Your task to perform on an android device: Empty the shopping cart on walmart.com. Image 0: 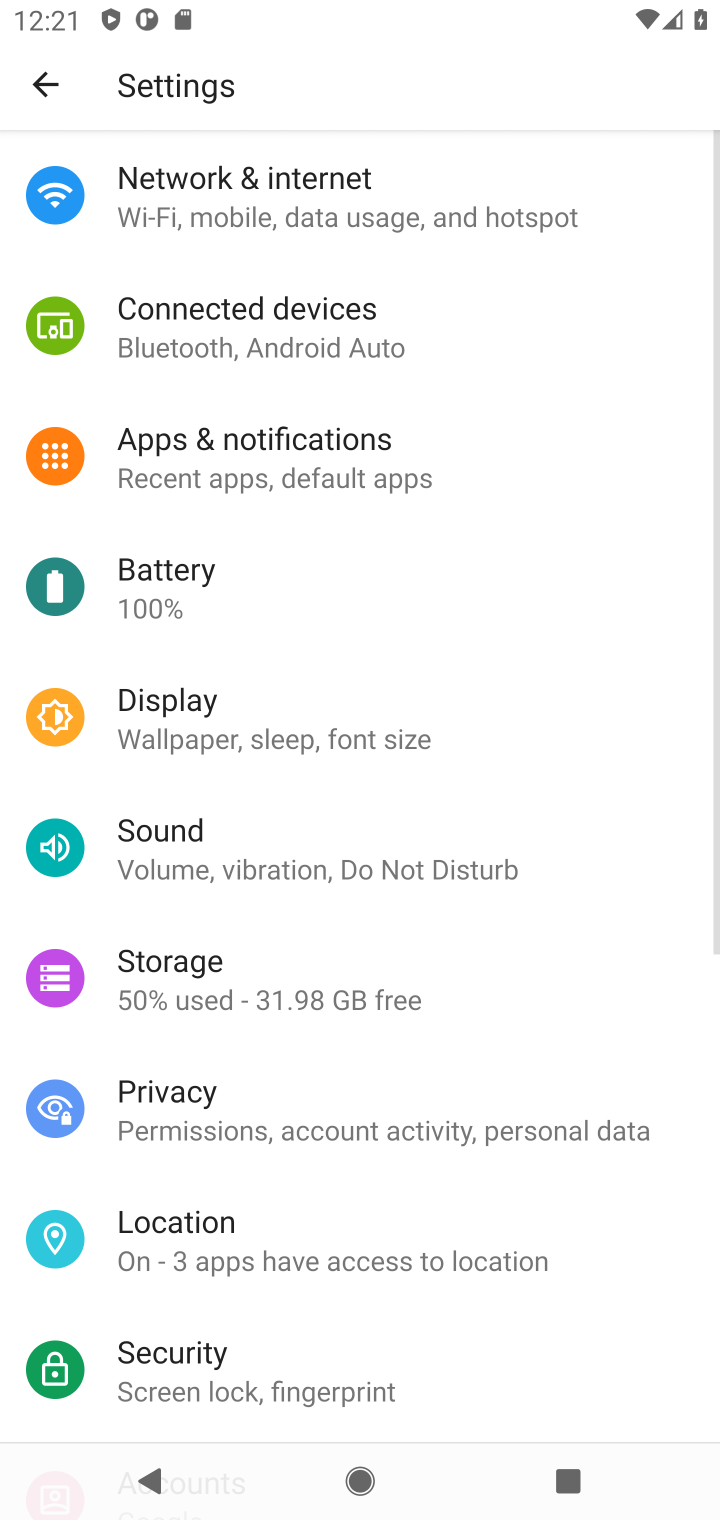
Step 0: press home button
Your task to perform on an android device: Empty the shopping cart on walmart.com. Image 1: 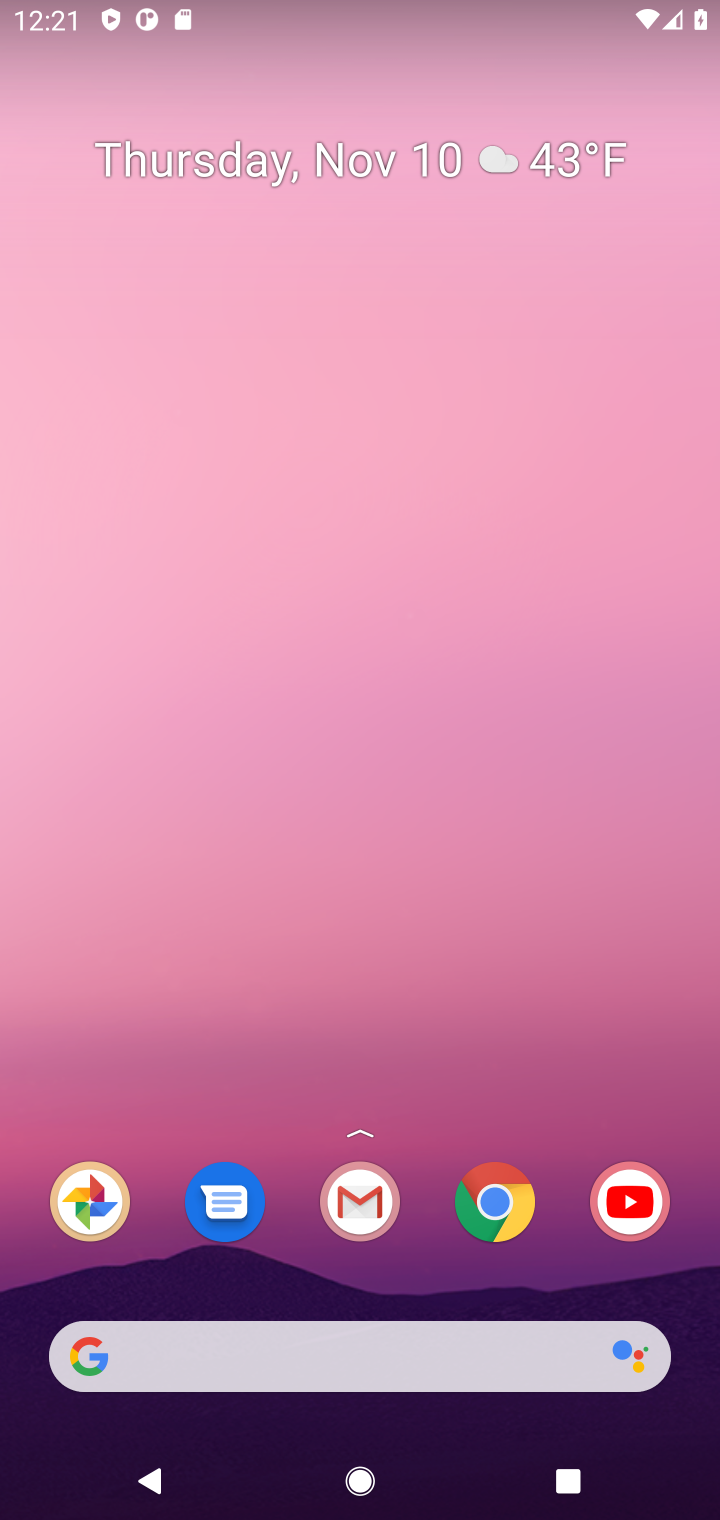
Step 1: click (519, 1198)
Your task to perform on an android device: Empty the shopping cart on walmart.com. Image 2: 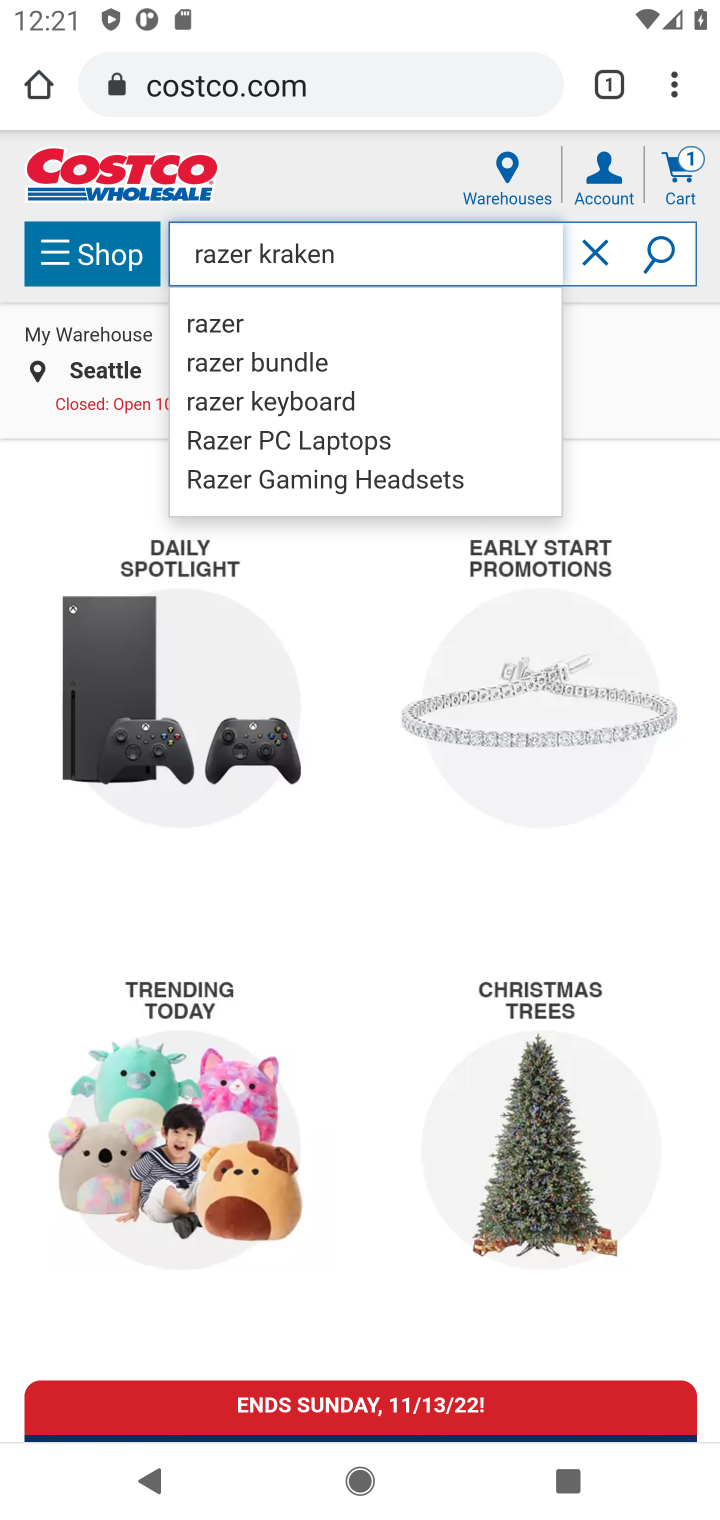
Step 2: click (356, 64)
Your task to perform on an android device: Empty the shopping cart on walmart.com. Image 3: 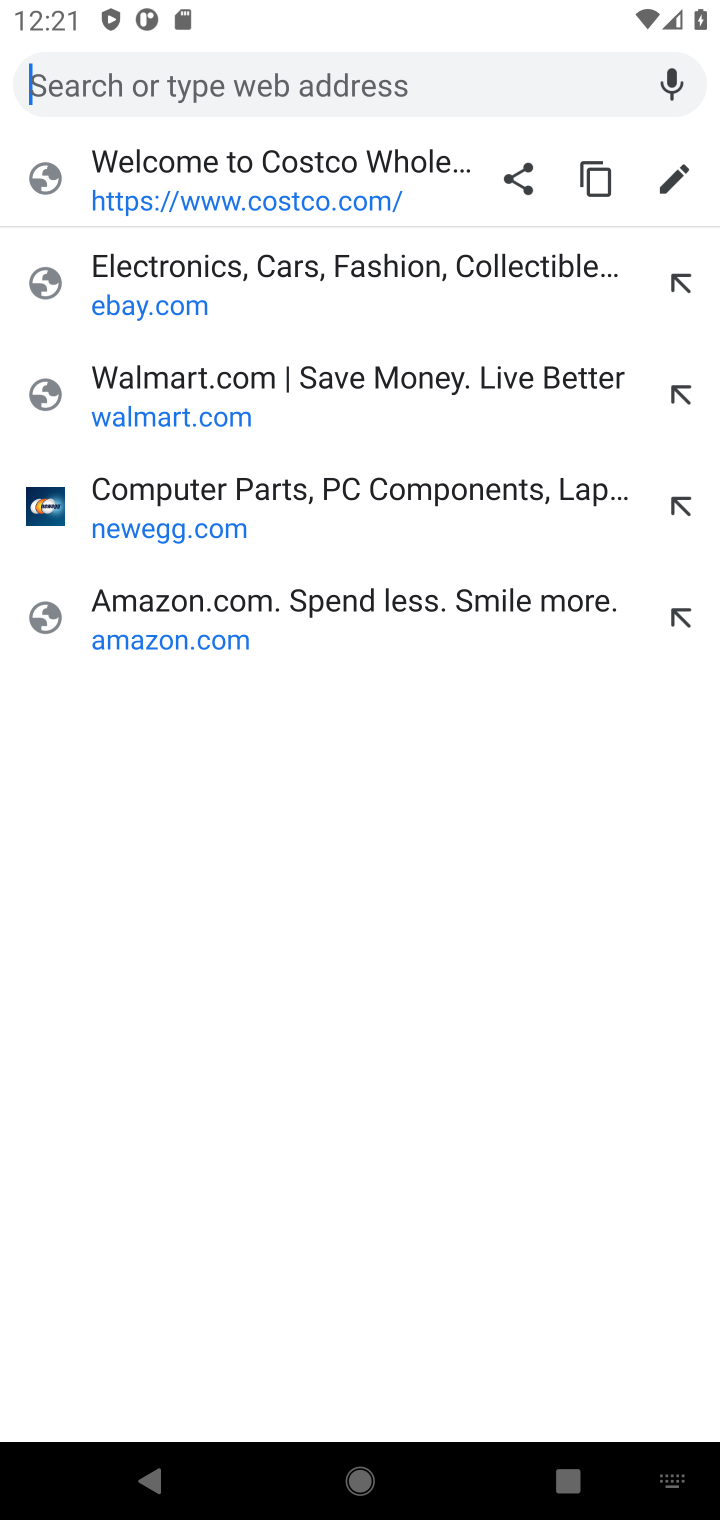
Step 3: click (300, 378)
Your task to perform on an android device: Empty the shopping cart on walmart.com. Image 4: 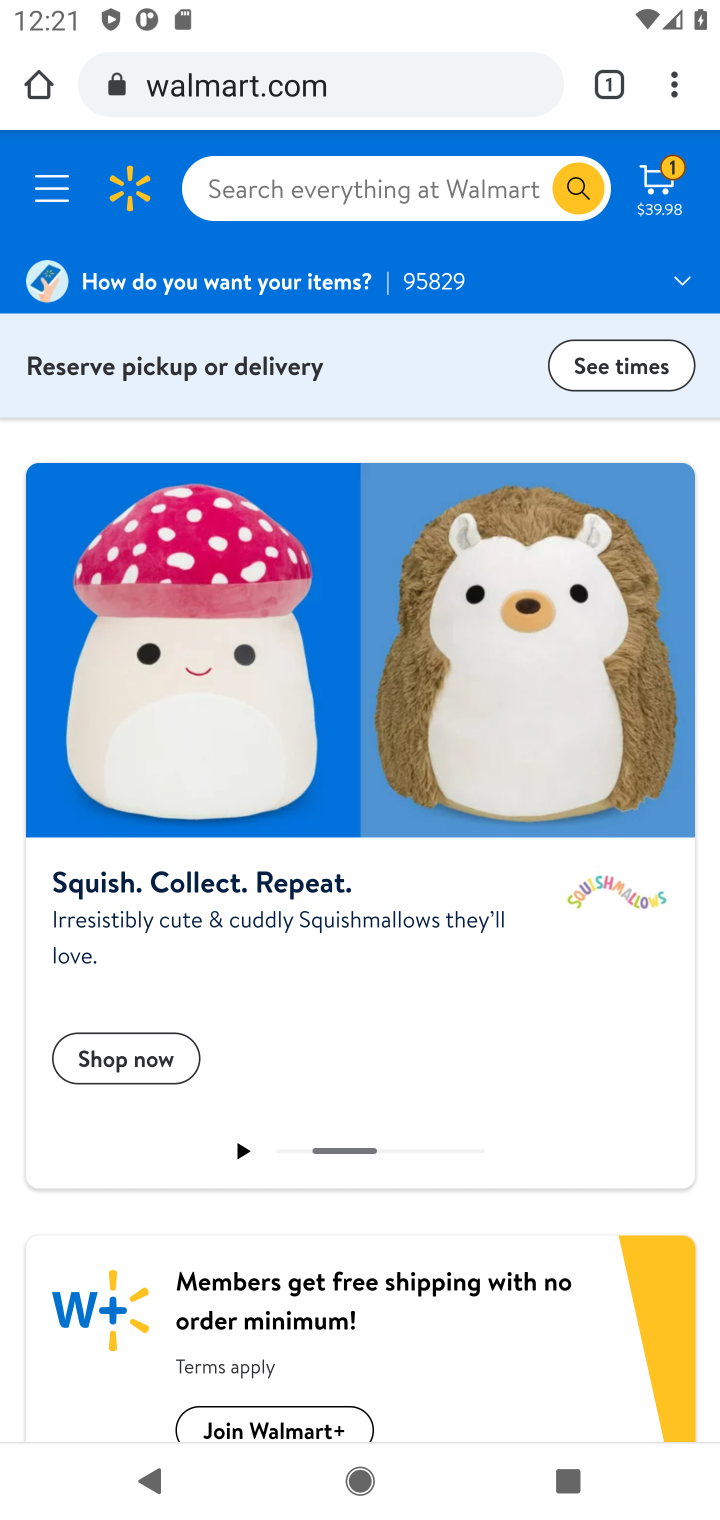
Step 4: click (663, 175)
Your task to perform on an android device: Empty the shopping cart on walmart.com. Image 5: 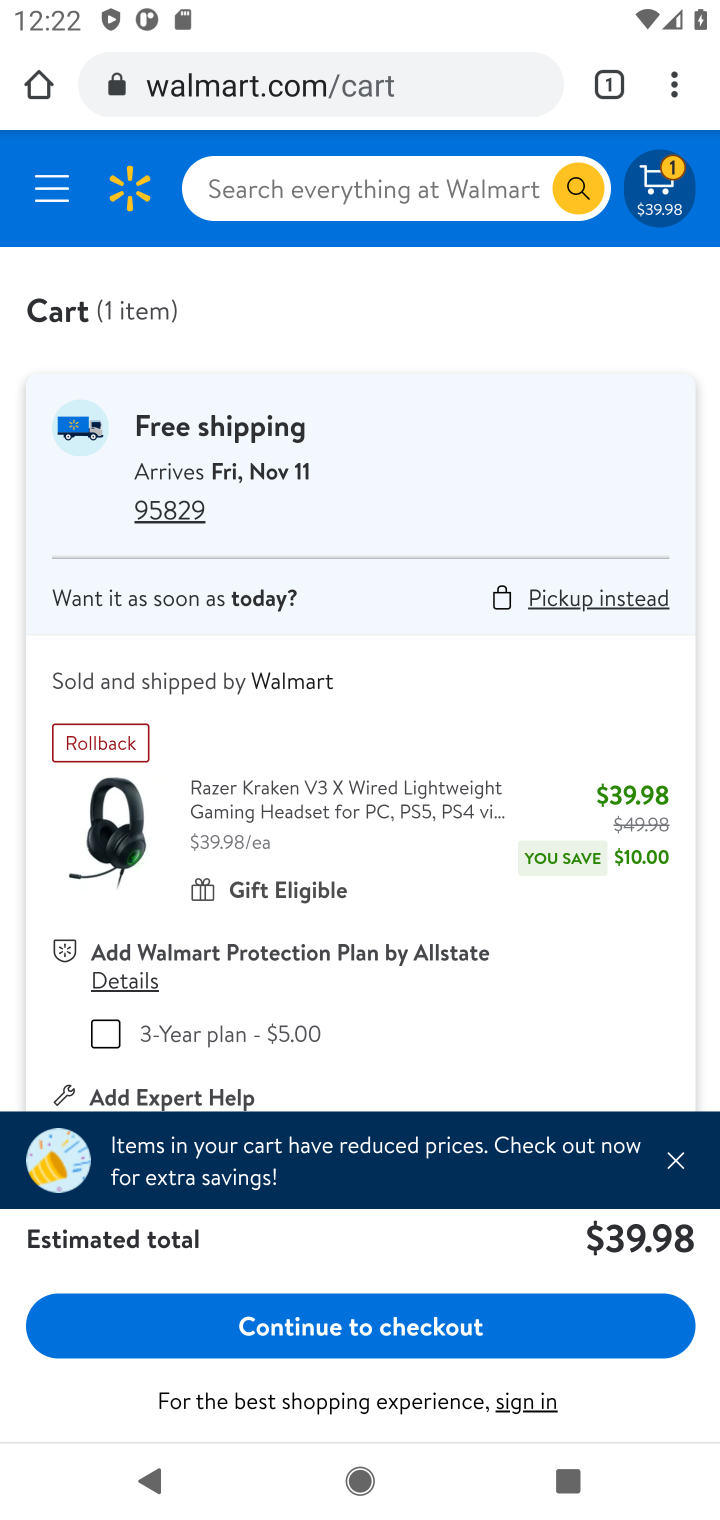
Step 5: drag from (587, 970) to (565, 498)
Your task to perform on an android device: Empty the shopping cart on walmart.com. Image 6: 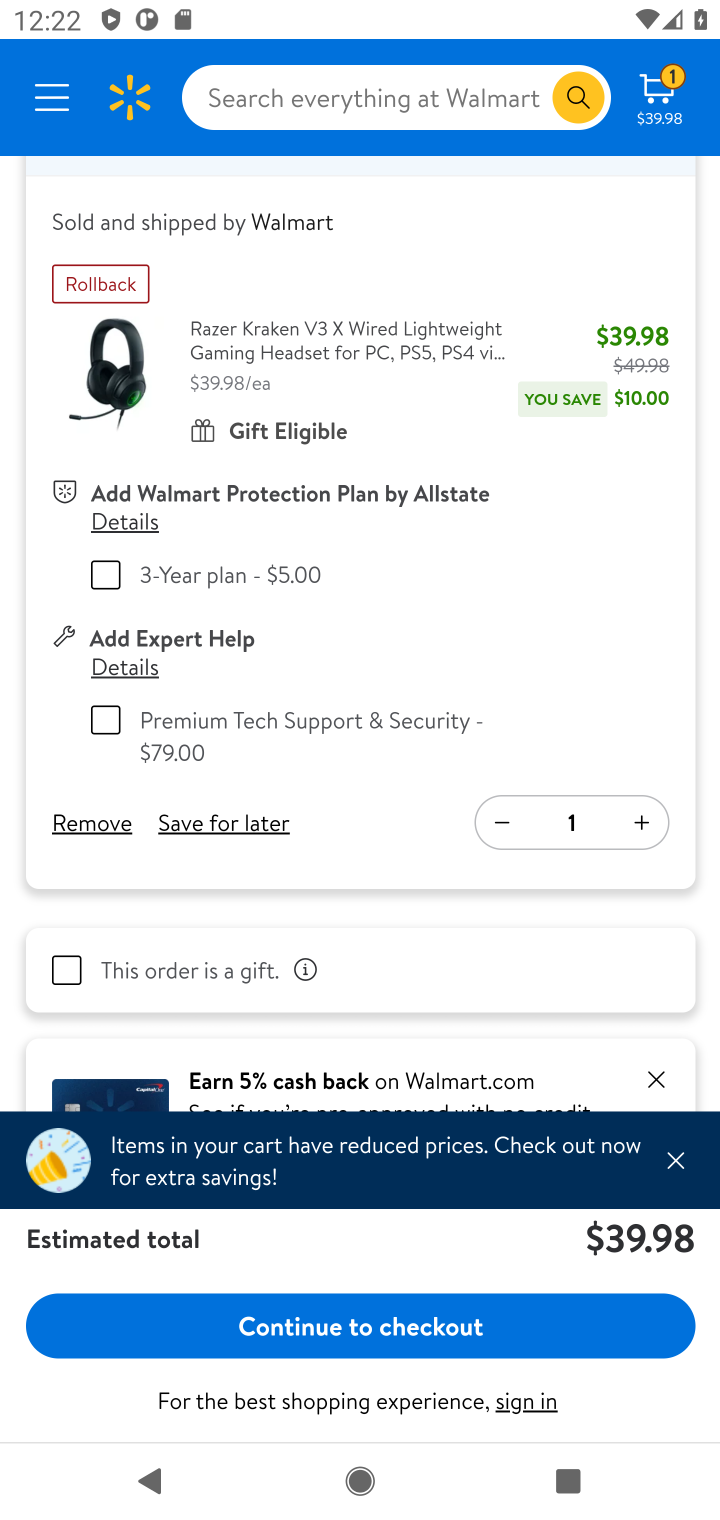
Step 6: click (104, 817)
Your task to perform on an android device: Empty the shopping cart on walmart.com. Image 7: 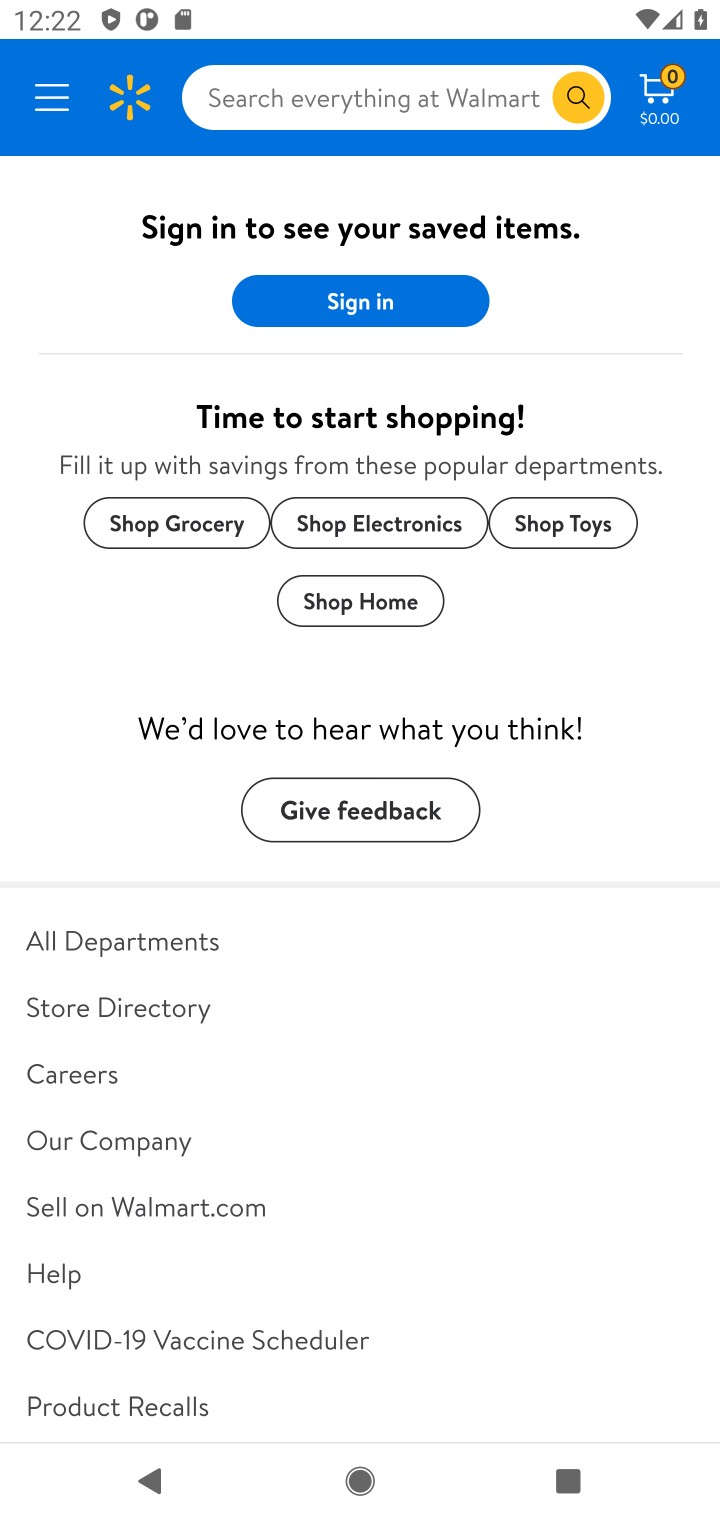
Step 7: task complete